Your task to perform on an android device: set the stopwatch Image 0: 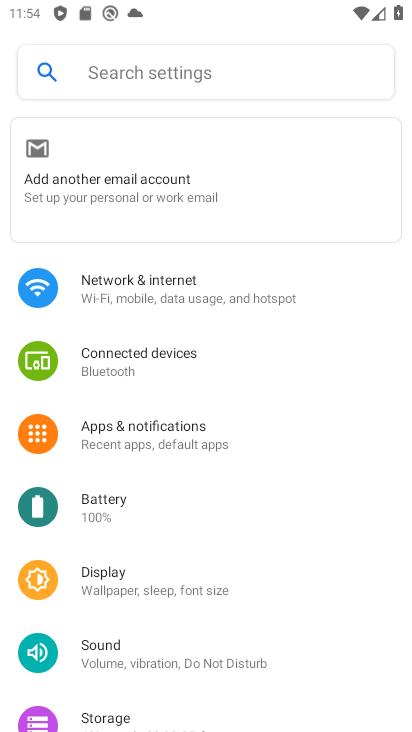
Step 0: press home button
Your task to perform on an android device: set the stopwatch Image 1: 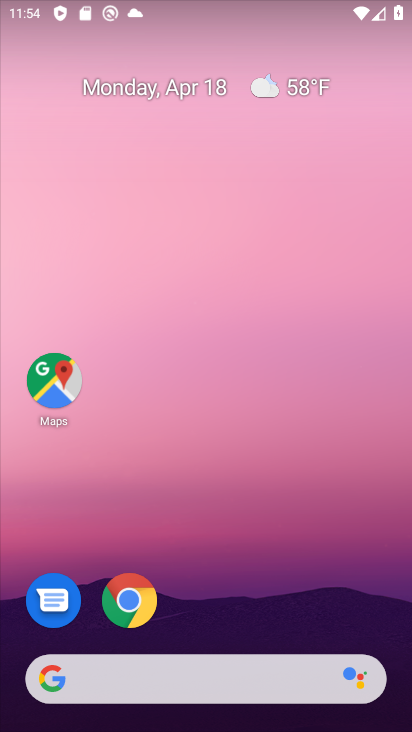
Step 1: drag from (224, 707) to (290, 273)
Your task to perform on an android device: set the stopwatch Image 2: 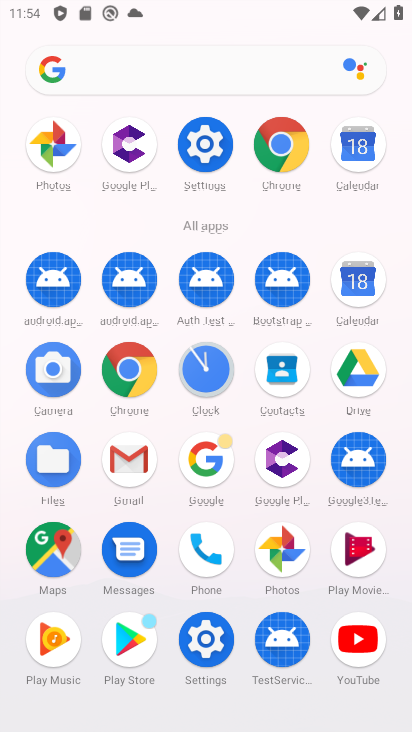
Step 2: click (206, 379)
Your task to perform on an android device: set the stopwatch Image 3: 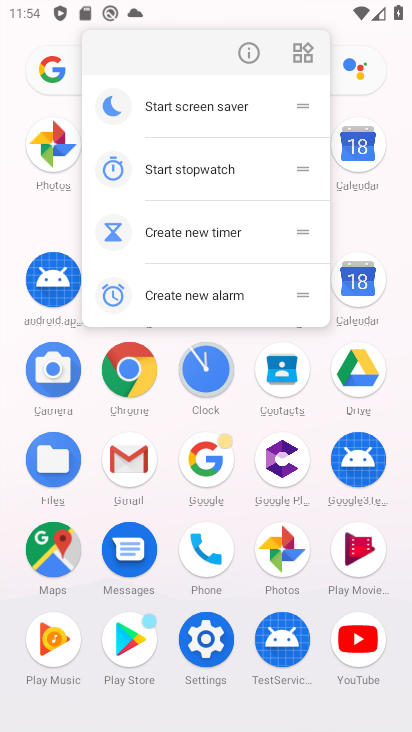
Step 3: click (198, 363)
Your task to perform on an android device: set the stopwatch Image 4: 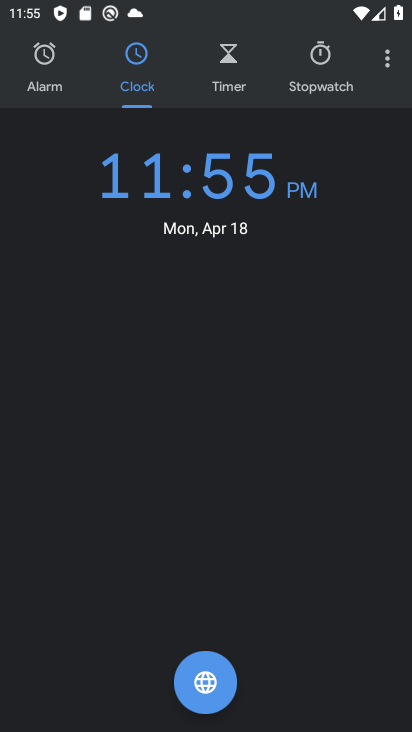
Step 4: click (307, 62)
Your task to perform on an android device: set the stopwatch Image 5: 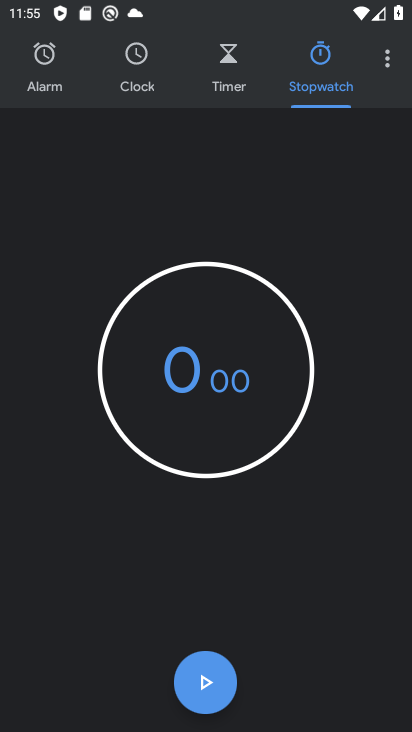
Step 5: task complete